Your task to perform on an android device: snooze an email in the gmail app Image 0: 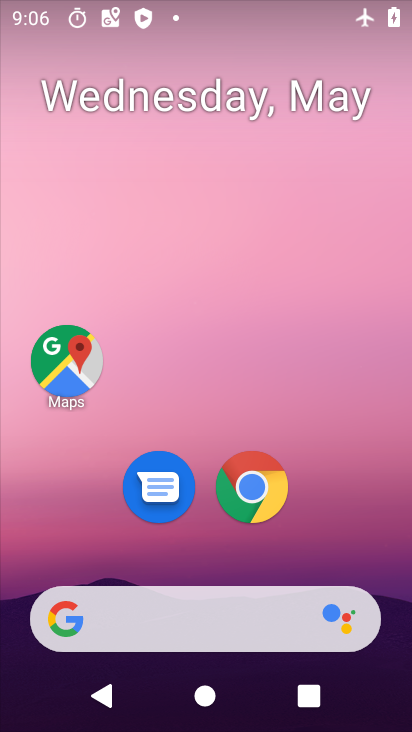
Step 0: drag from (195, 557) to (191, 237)
Your task to perform on an android device: snooze an email in the gmail app Image 1: 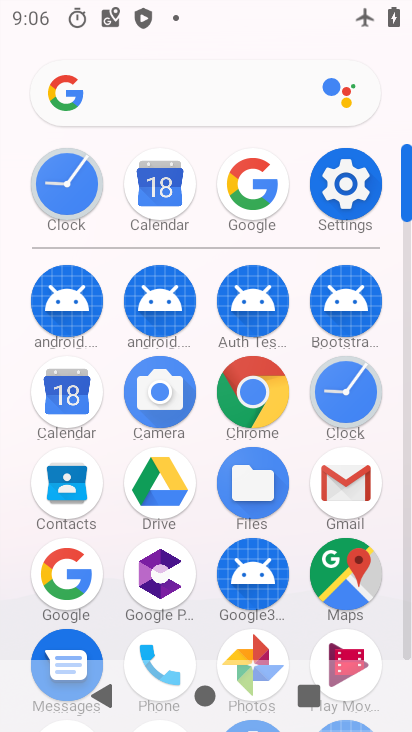
Step 1: click (334, 486)
Your task to perform on an android device: snooze an email in the gmail app Image 2: 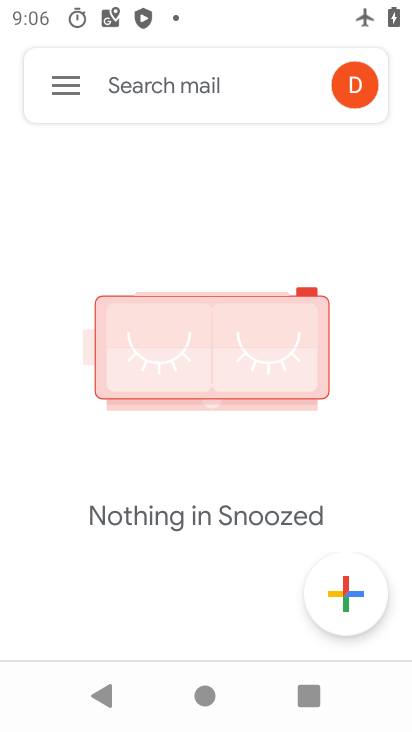
Step 2: click (72, 69)
Your task to perform on an android device: snooze an email in the gmail app Image 3: 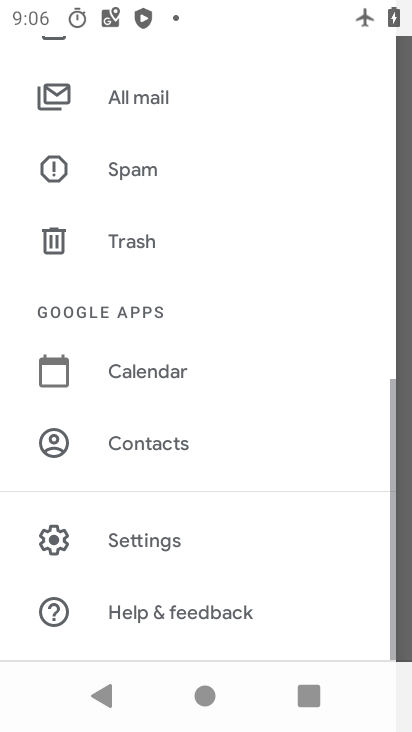
Step 3: click (110, 92)
Your task to perform on an android device: snooze an email in the gmail app Image 4: 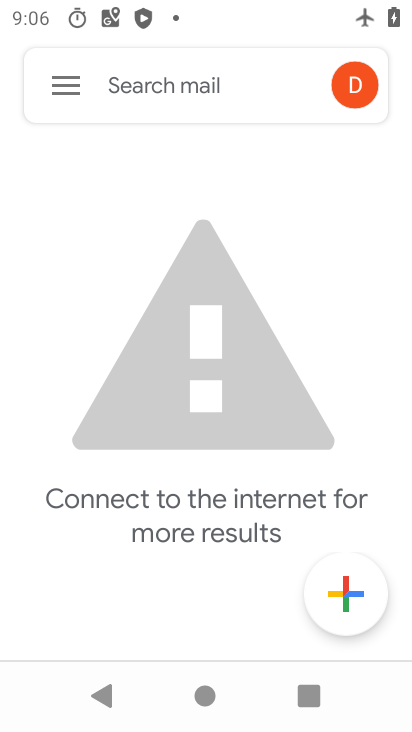
Step 4: task complete